Your task to perform on an android device: change your default location settings in chrome Image 0: 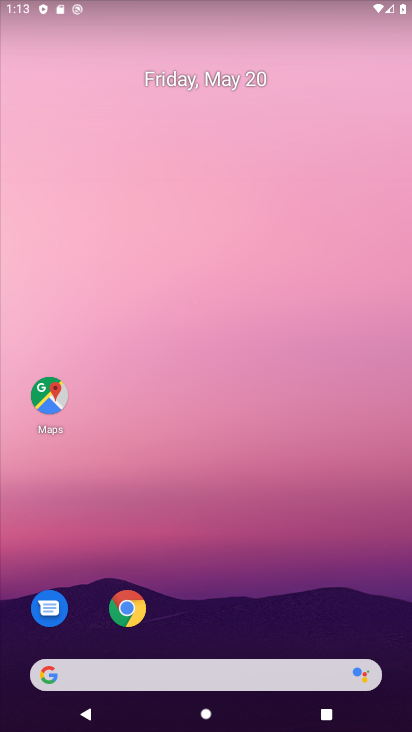
Step 0: click (128, 605)
Your task to perform on an android device: change your default location settings in chrome Image 1: 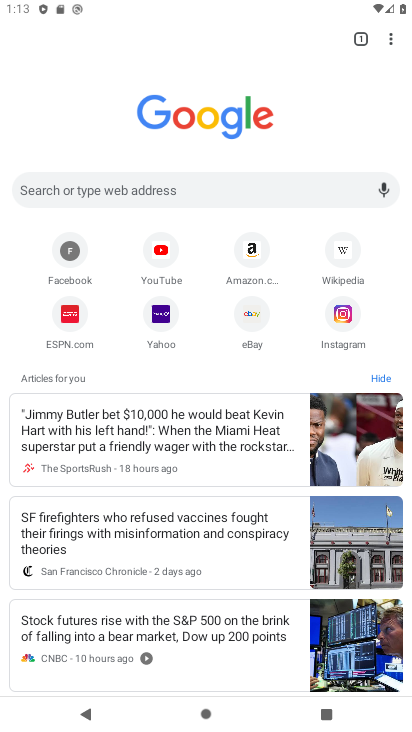
Step 1: click (387, 37)
Your task to perform on an android device: change your default location settings in chrome Image 2: 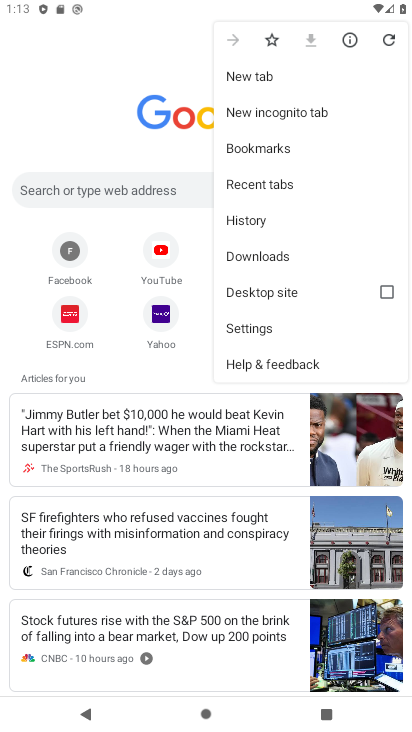
Step 2: click (271, 329)
Your task to perform on an android device: change your default location settings in chrome Image 3: 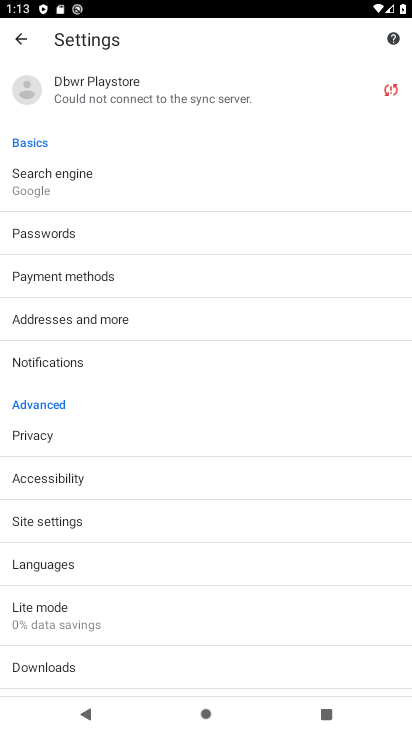
Step 3: click (58, 510)
Your task to perform on an android device: change your default location settings in chrome Image 4: 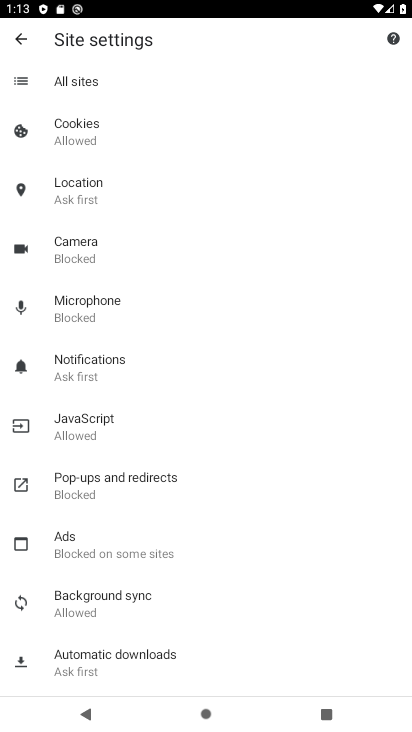
Step 4: click (119, 188)
Your task to perform on an android device: change your default location settings in chrome Image 5: 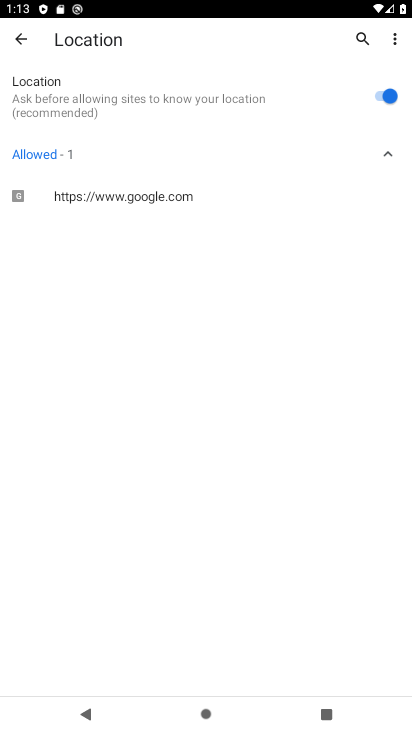
Step 5: click (384, 95)
Your task to perform on an android device: change your default location settings in chrome Image 6: 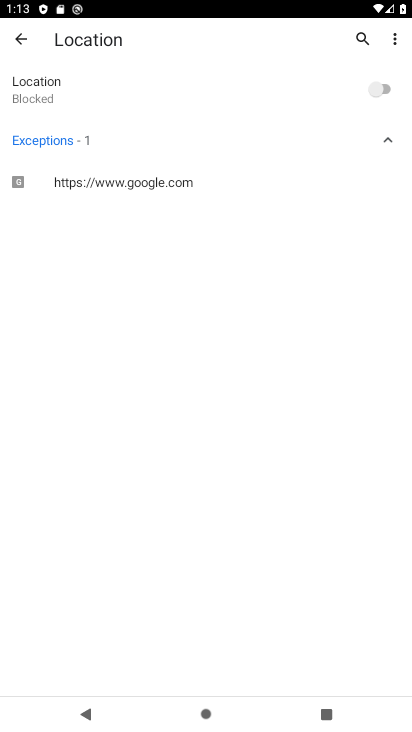
Step 6: task complete